Your task to perform on an android device: turn off location Image 0: 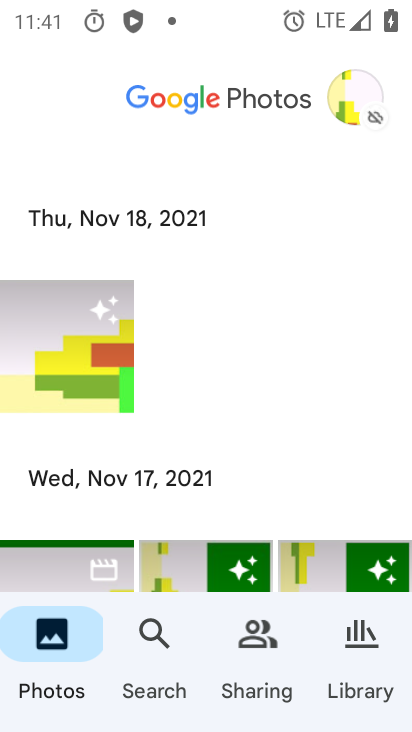
Step 0: press home button
Your task to perform on an android device: turn off location Image 1: 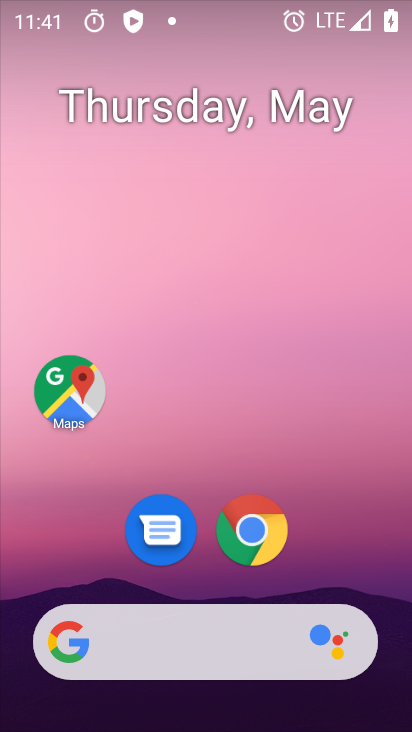
Step 1: drag from (309, 587) to (325, 79)
Your task to perform on an android device: turn off location Image 2: 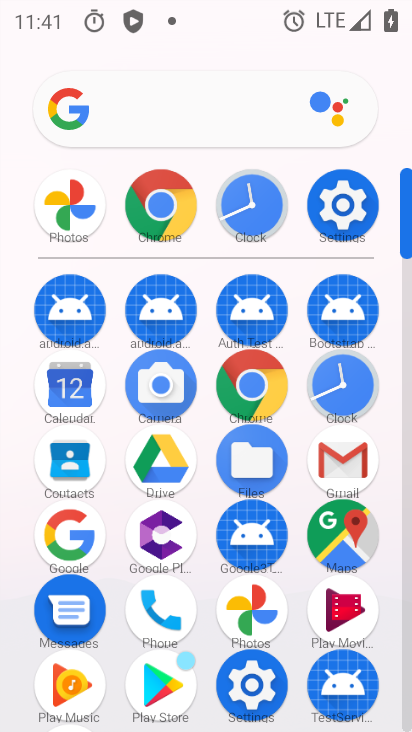
Step 2: click (336, 196)
Your task to perform on an android device: turn off location Image 3: 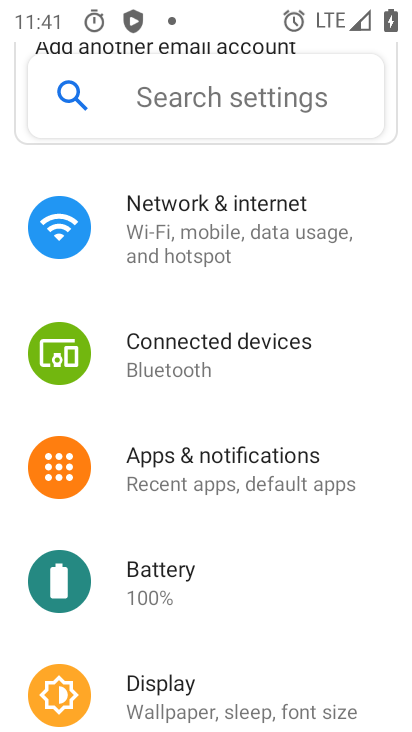
Step 3: drag from (227, 572) to (254, 262)
Your task to perform on an android device: turn off location Image 4: 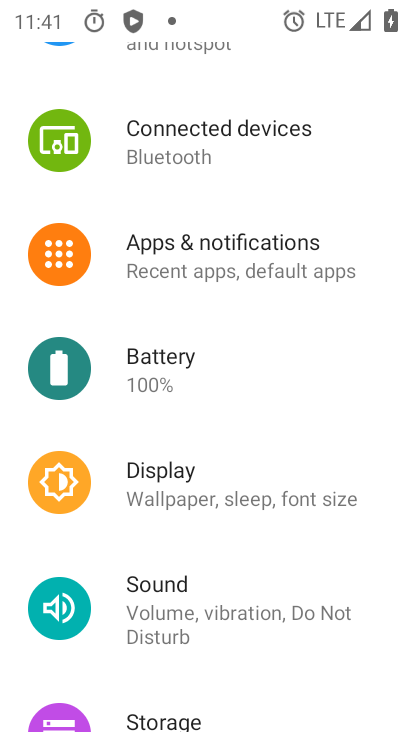
Step 4: drag from (210, 611) to (250, 287)
Your task to perform on an android device: turn off location Image 5: 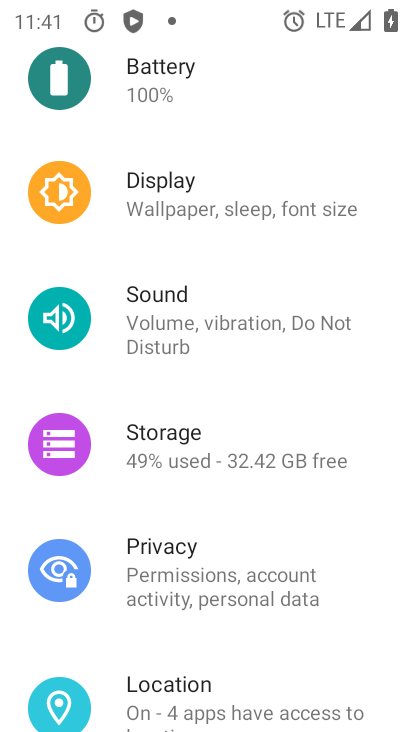
Step 5: click (185, 701)
Your task to perform on an android device: turn off location Image 6: 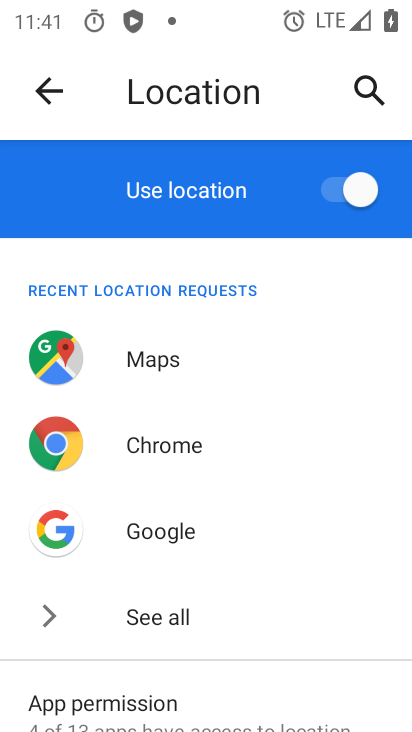
Step 6: drag from (259, 625) to (296, 472)
Your task to perform on an android device: turn off location Image 7: 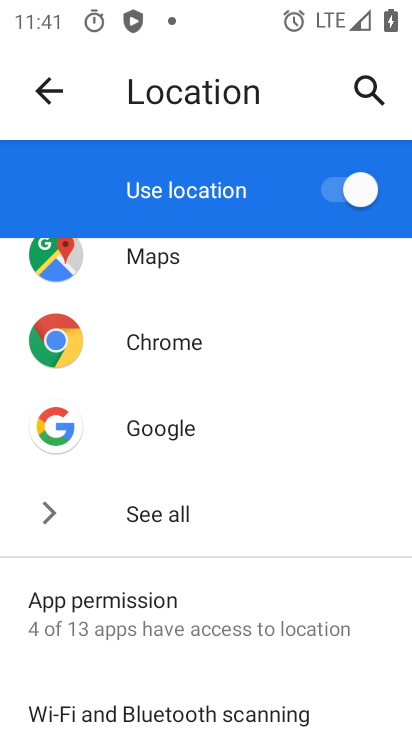
Step 7: click (354, 195)
Your task to perform on an android device: turn off location Image 8: 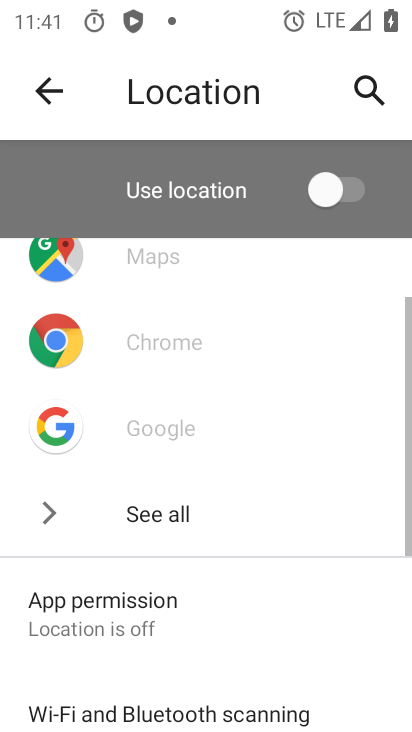
Step 8: task complete